Your task to perform on an android device: Open location settings Image 0: 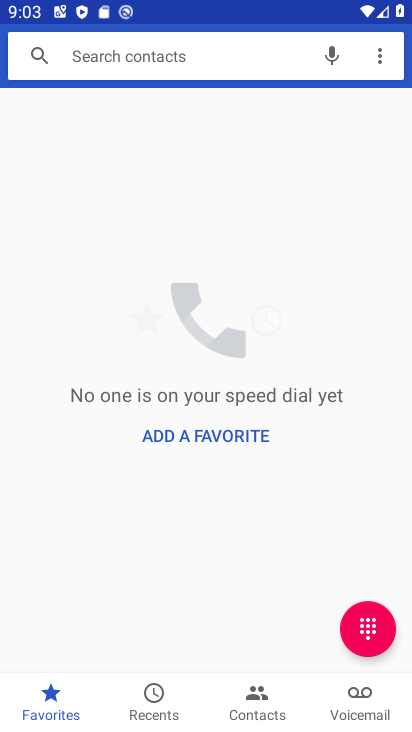
Step 0: press home button
Your task to perform on an android device: Open location settings Image 1: 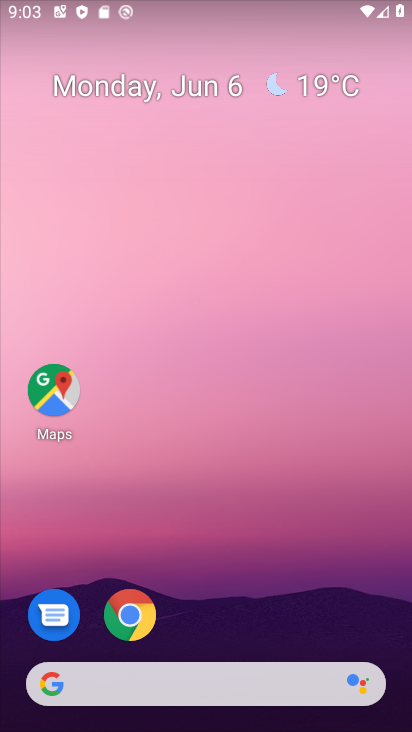
Step 1: drag from (211, 660) to (166, 3)
Your task to perform on an android device: Open location settings Image 2: 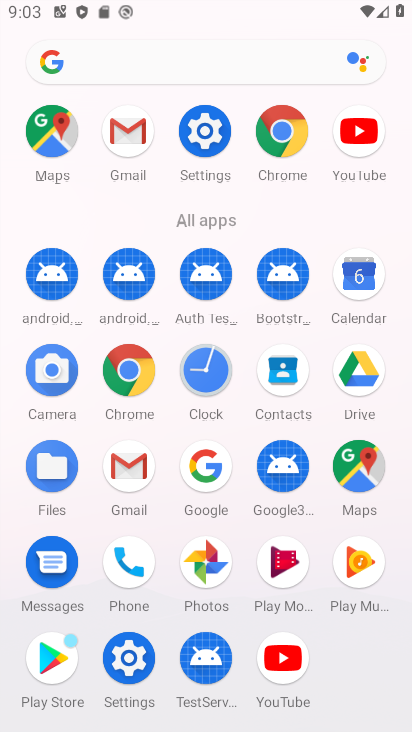
Step 2: click (194, 133)
Your task to perform on an android device: Open location settings Image 3: 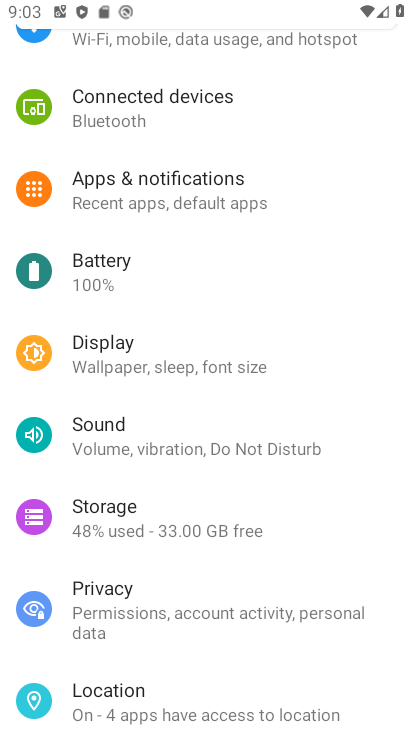
Step 3: click (121, 709)
Your task to perform on an android device: Open location settings Image 4: 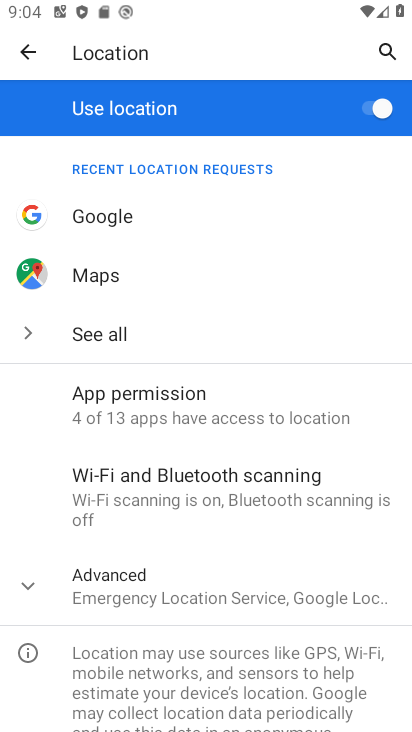
Step 4: task complete